Your task to perform on an android device: snooze an email in the gmail app Image 0: 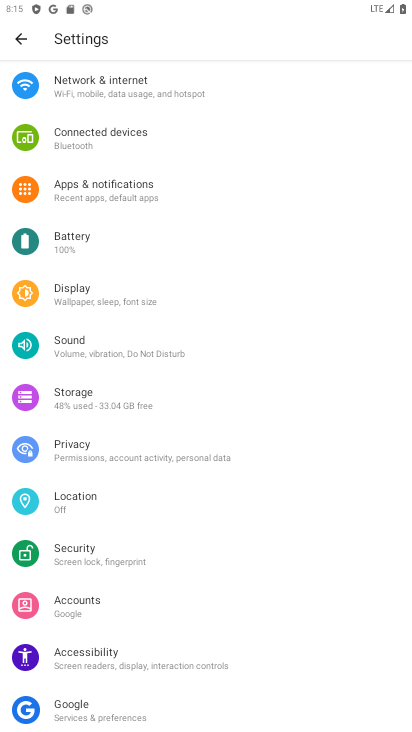
Step 0: press home button
Your task to perform on an android device: snooze an email in the gmail app Image 1: 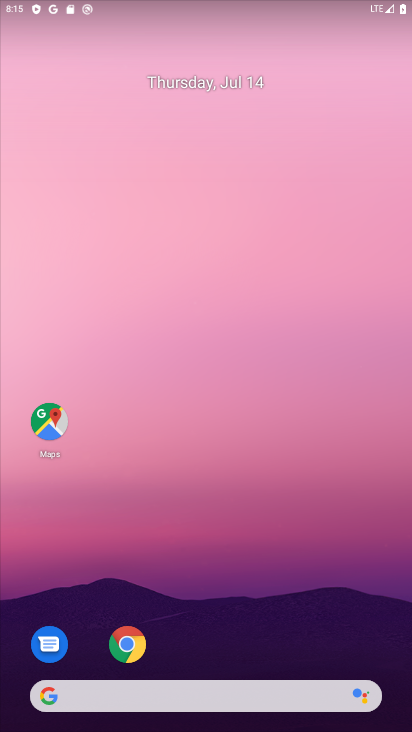
Step 1: drag from (186, 682) to (285, 153)
Your task to perform on an android device: snooze an email in the gmail app Image 2: 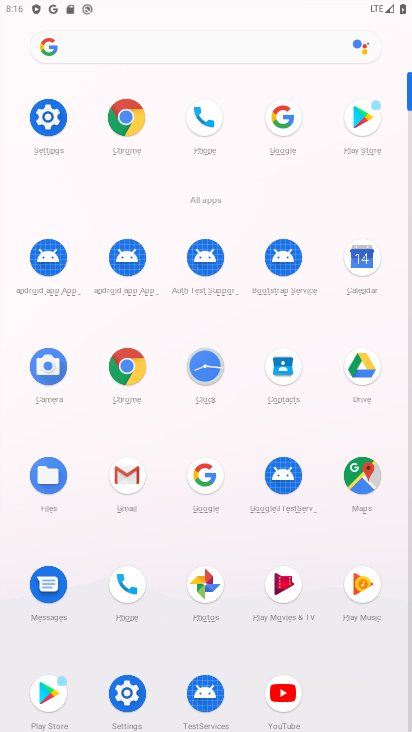
Step 2: click (121, 470)
Your task to perform on an android device: snooze an email in the gmail app Image 3: 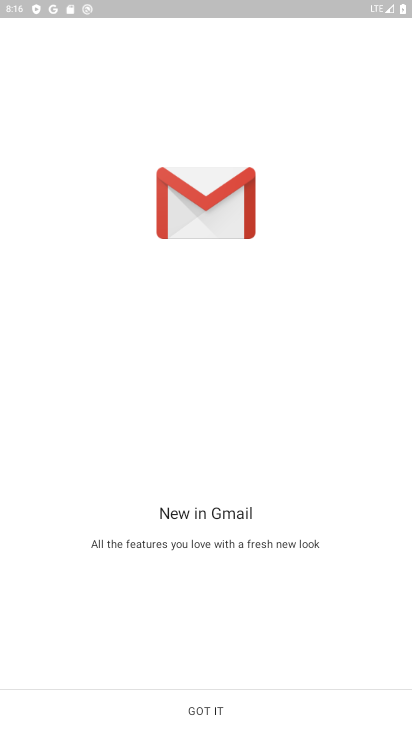
Step 3: click (213, 706)
Your task to perform on an android device: snooze an email in the gmail app Image 4: 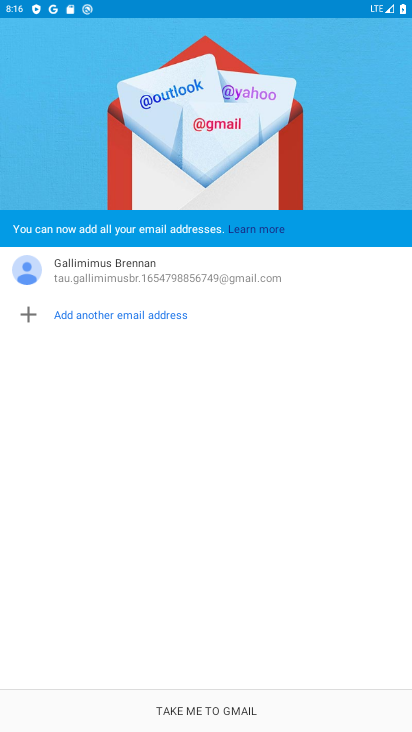
Step 4: click (213, 706)
Your task to perform on an android device: snooze an email in the gmail app Image 5: 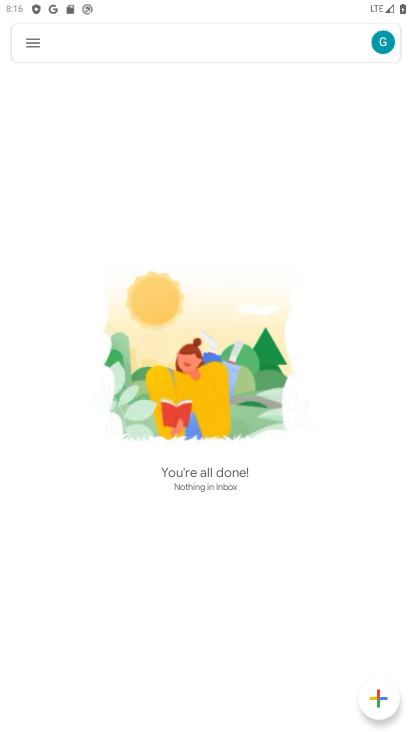
Step 5: click (38, 43)
Your task to perform on an android device: snooze an email in the gmail app Image 6: 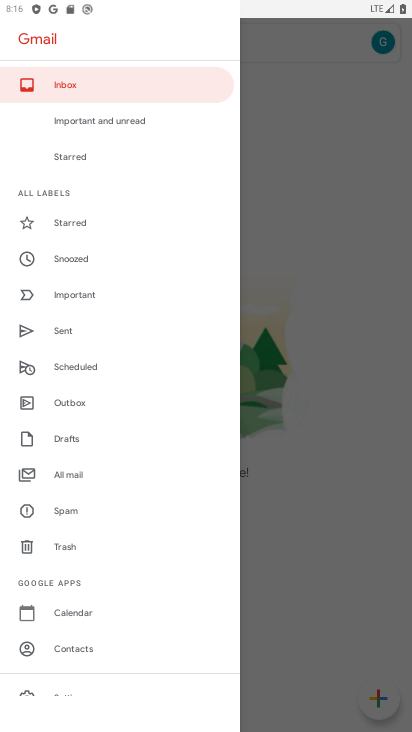
Step 6: click (82, 477)
Your task to perform on an android device: snooze an email in the gmail app Image 7: 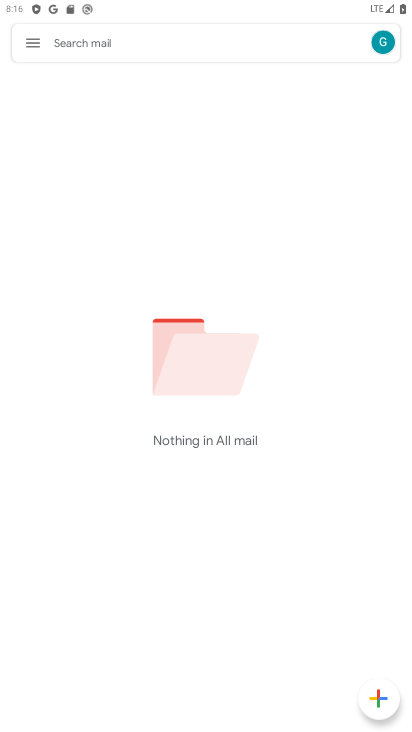
Step 7: task complete